Your task to perform on an android device: What's the weather going to be this weekend? Image 0: 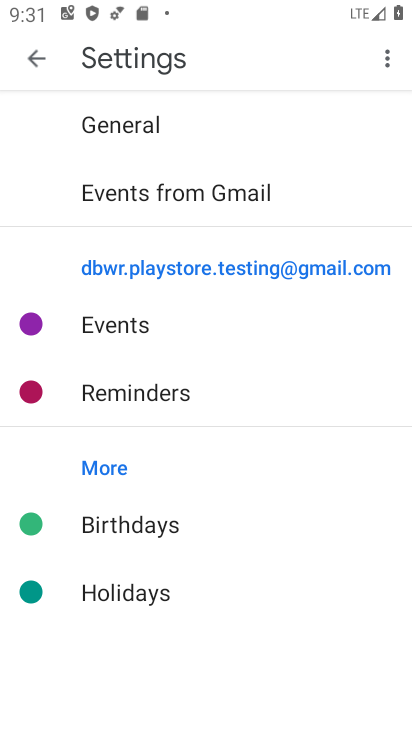
Step 0: press home button
Your task to perform on an android device: What's the weather going to be this weekend? Image 1: 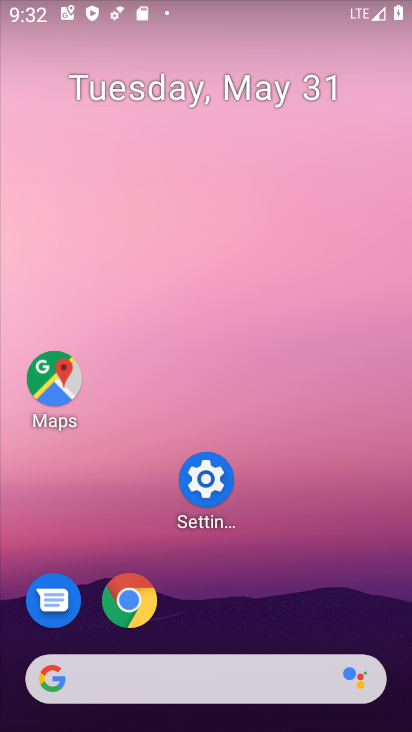
Step 1: click (176, 667)
Your task to perform on an android device: What's the weather going to be this weekend? Image 2: 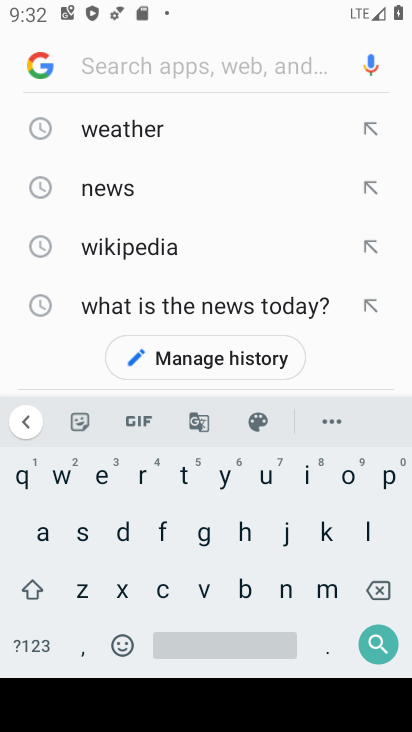
Step 2: click (139, 132)
Your task to perform on an android device: What's the weather going to be this weekend? Image 3: 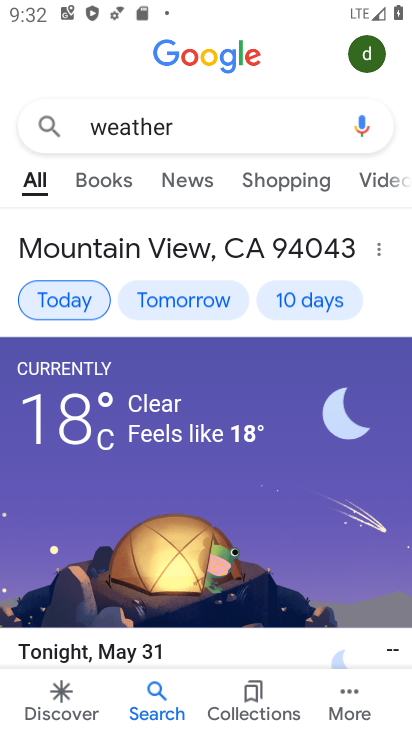
Step 3: click (294, 288)
Your task to perform on an android device: What's the weather going to be this weekend? Image 4: 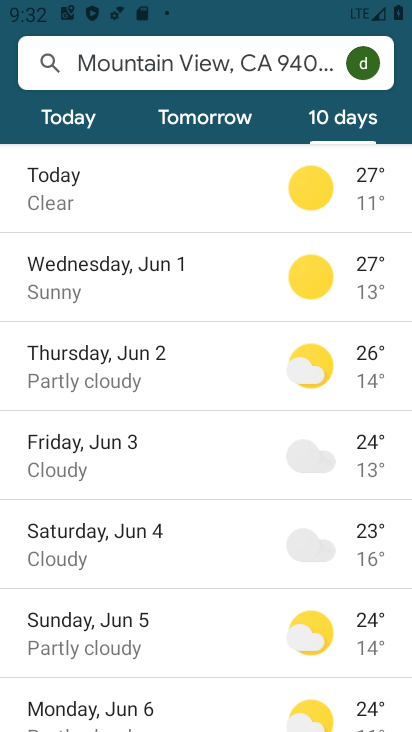
Step 4: task complete